Your task to perform on an android device: Open Yahoo.com Image 0: 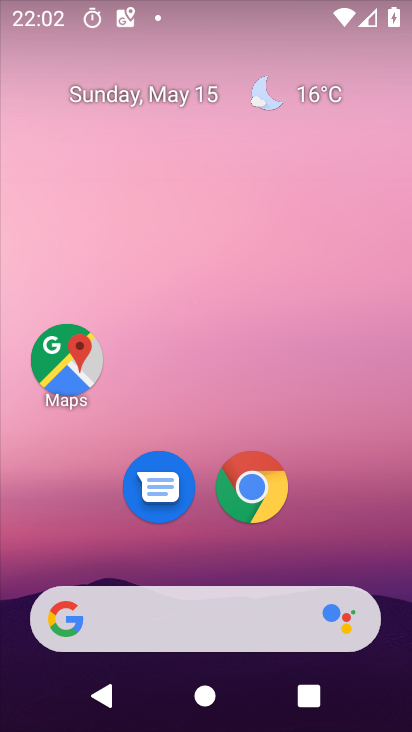
Step 0: click (250, 479)
Your task to perform on an android device: Open Yahoo.com Image 1: 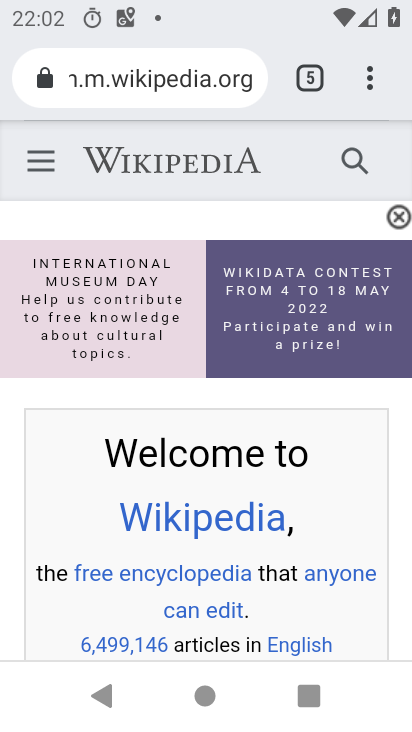
Step 1: click (315, 72)
Your task to perform on an android device: Open Yahoo.com Image 2: 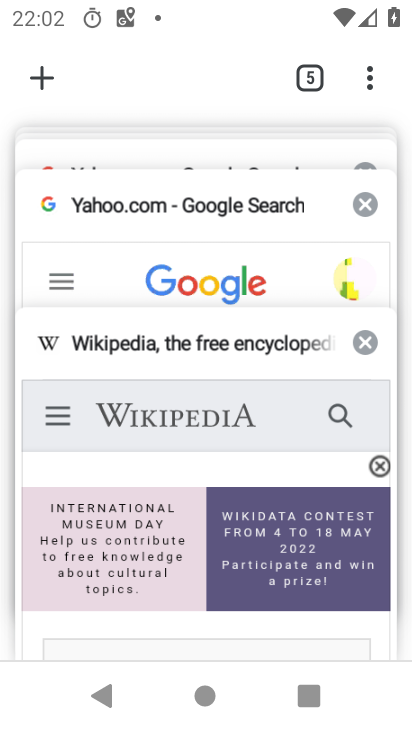
Step 2: click (372, 465)
Your task to perform on an android device: Open Yahoo.com Image 3: 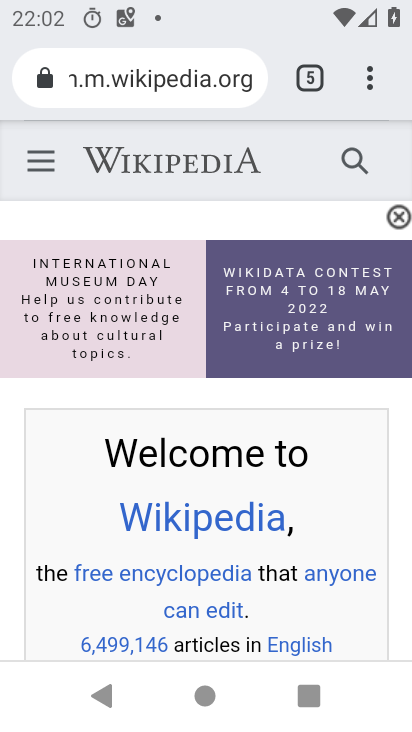
Step 3: click (312, 78)
Your task to perform on an android device: Open Yahoo.com Image 4: 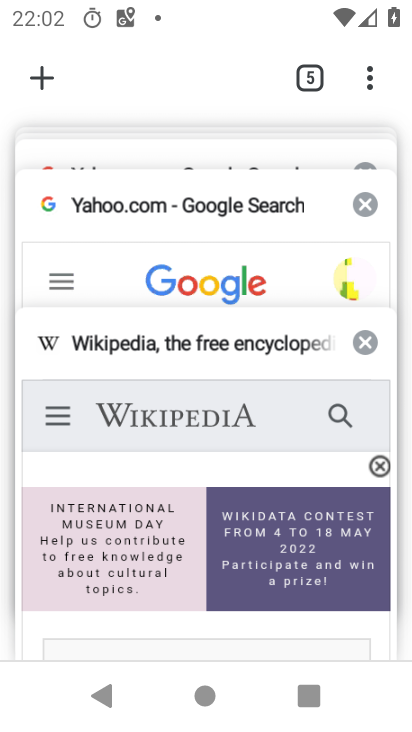
Step 4: click (364, 195)
Your task to perform on an android device: Open Yahoo.com Image 5: 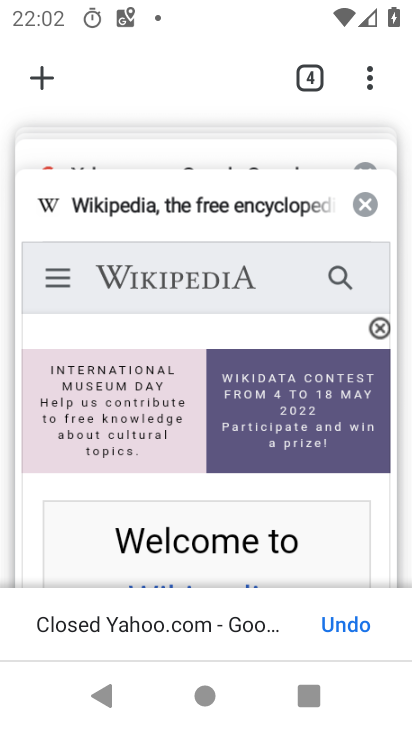
Step 5: click (364, 207)
Your task to perform on an android device: Open Yahoo.com Image 6: 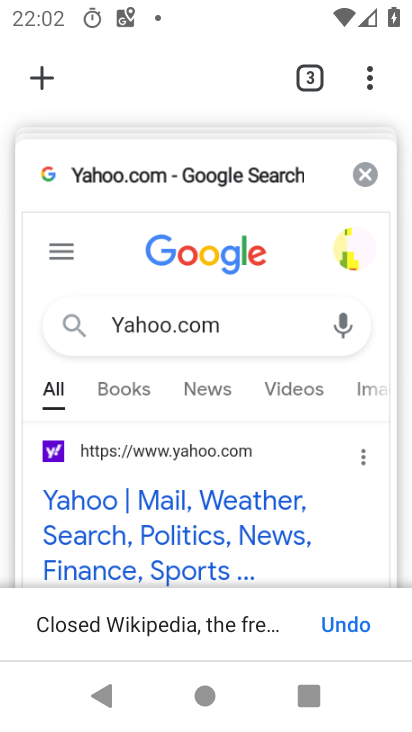
Step 6: click (364, 181)
Your task to perform on an android device: Open Yahoo.com Image 7: 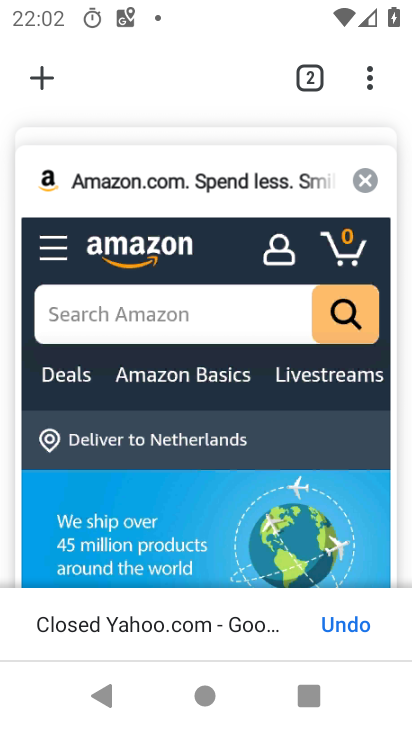
Step 7: click (360, 177)
Your task to perform on an android device: Open Yahoo.com Image 8: 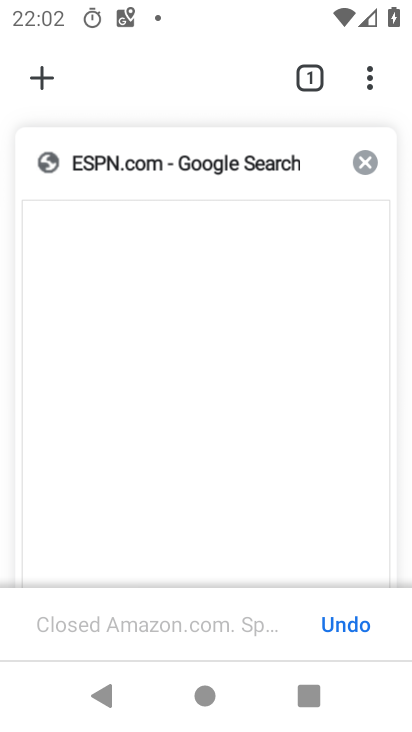
Step 8: click (360, 177)
Your task to perform on an android device: Open Yahoo.com Image 9: 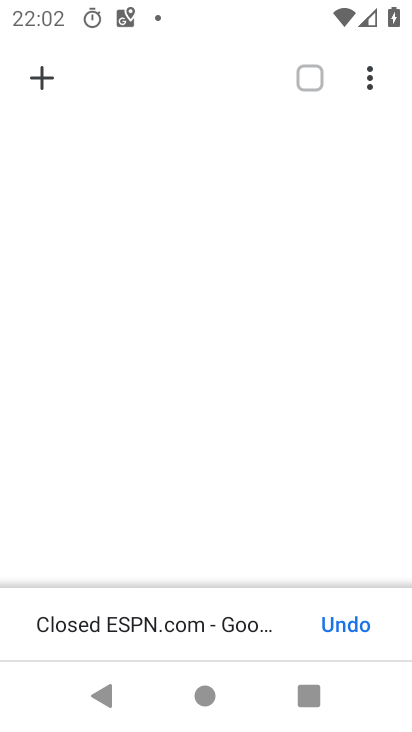
Step 9: click (32, 78)
Your task to perform on an android device: Open Yahoo.com Image 10: 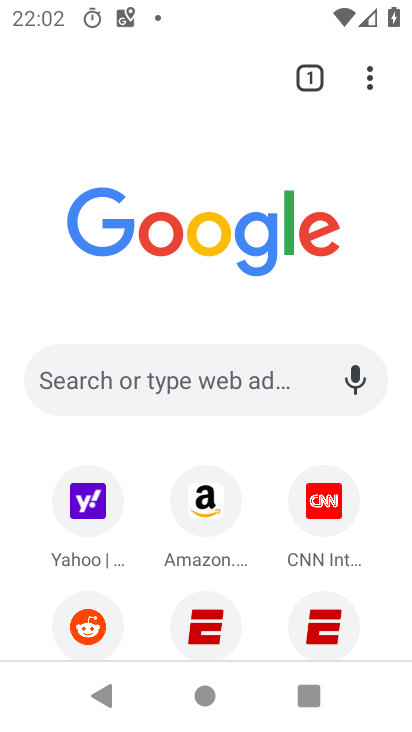
Step 10: click (193, 388)
Your task to perform on an android device: Open Yahoo.com Image 11: 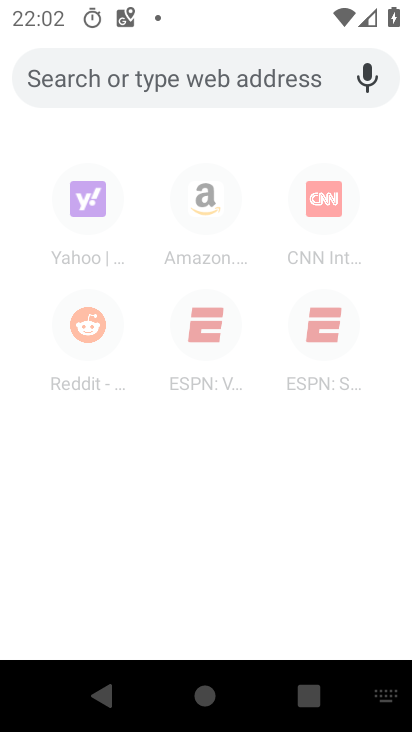
Step 11: type "Yahoo.com"
Your task to perform on an android device: Open Yahoo.com Image 12: 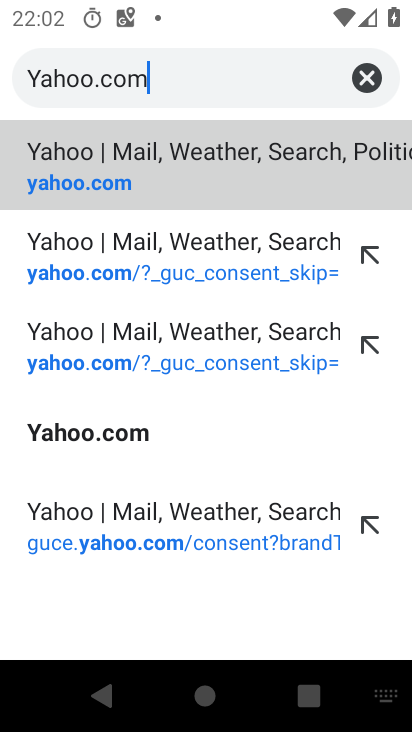
Step 12: click (97, 430)
Your task to perform on an android device: Open Yahoo.com Image 13: 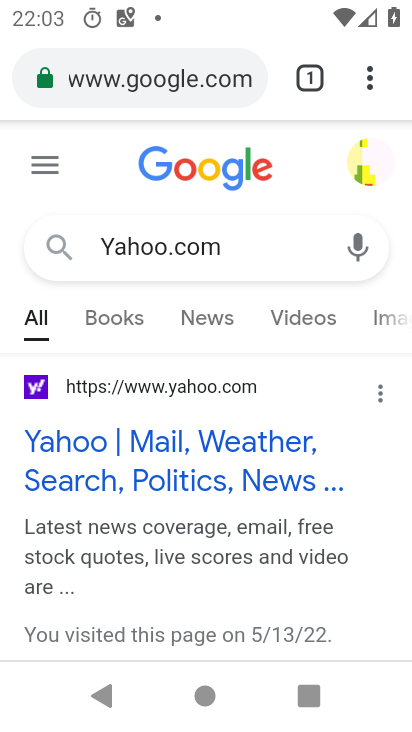
Step 13: task complete